Your task to perform on an android device: What is the speed of a cheetah? Image 0: 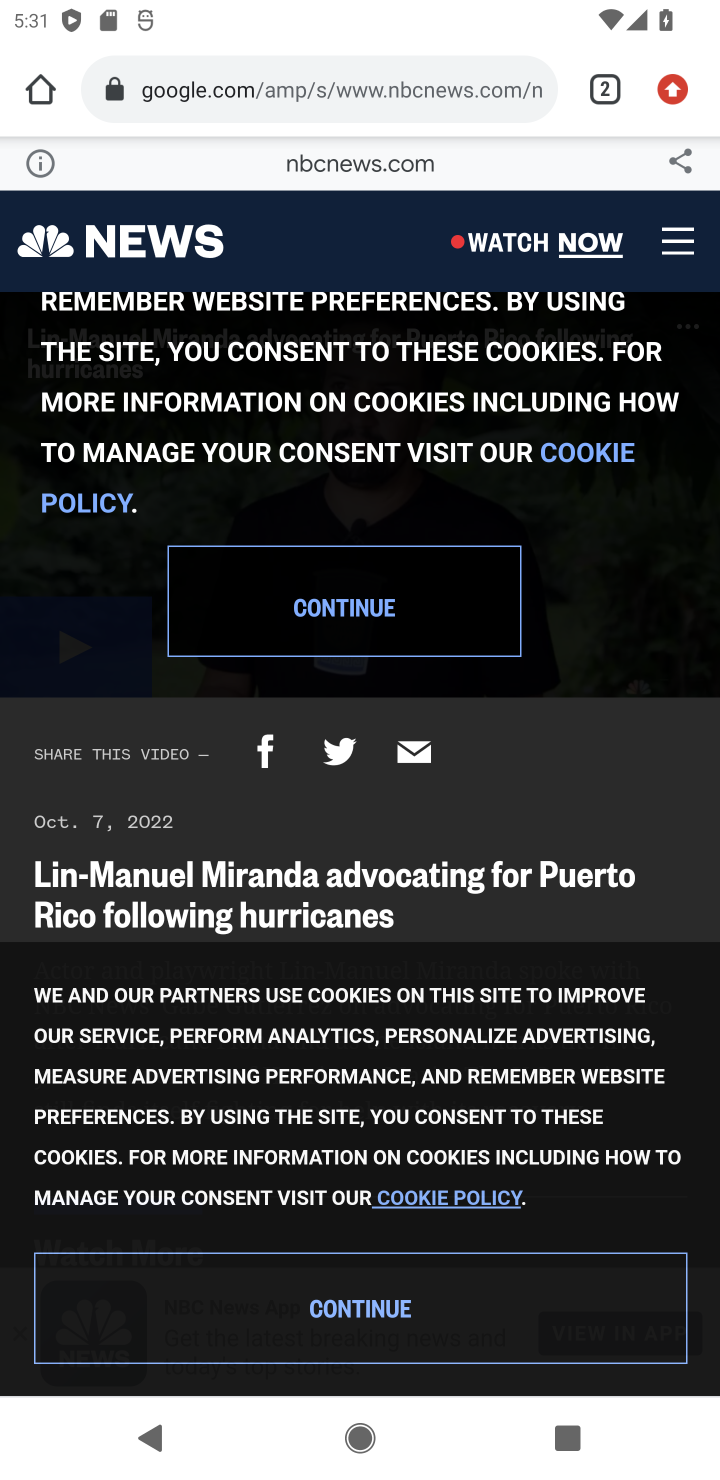
Step 0: press home button
Your task to perform on an android device: What is the speed of a cheetah? Image 1: 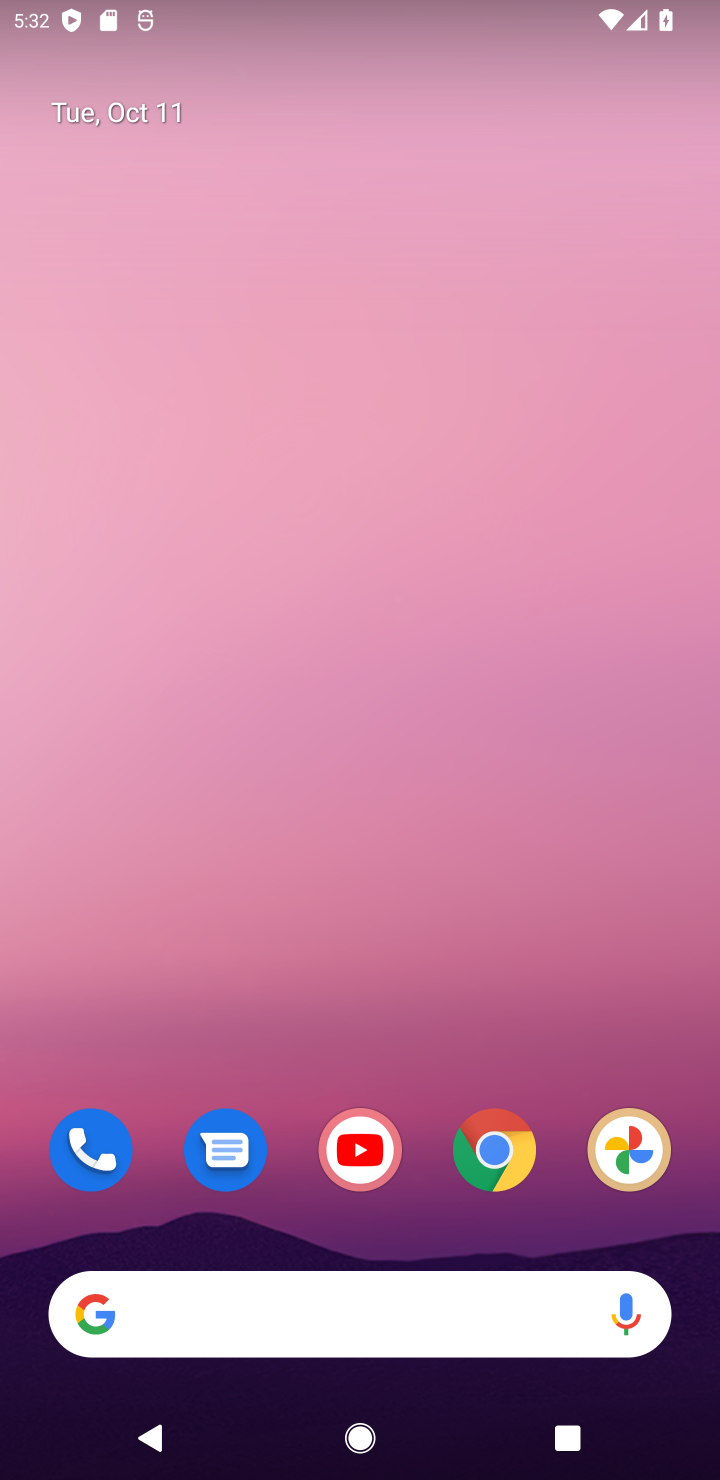
Step 1: click (480, 1158)
Your task to perform on an android device: What is the speed of a cheetah? Image 2: 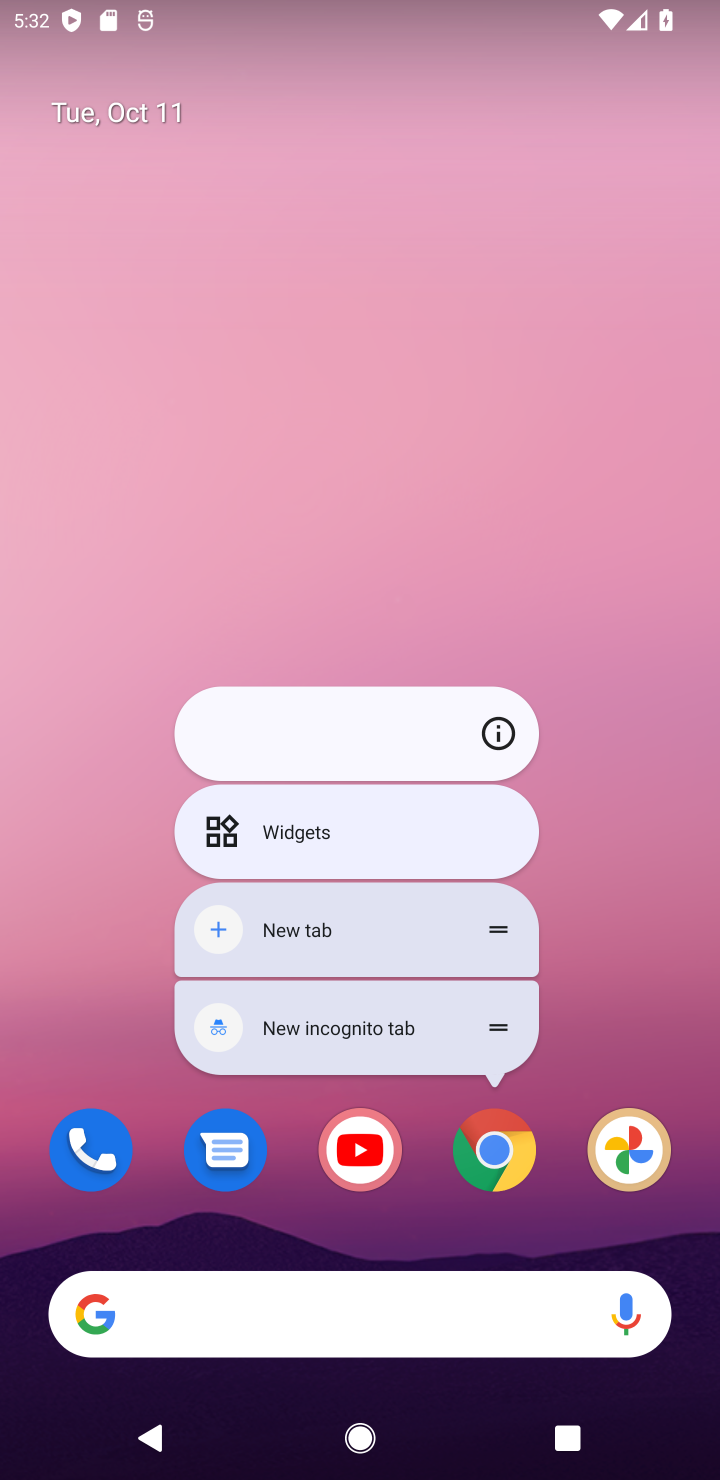
Step 2: click (500, 1169)
Your task to perform on an android device: What is the speed of a cheetah? Image 3: 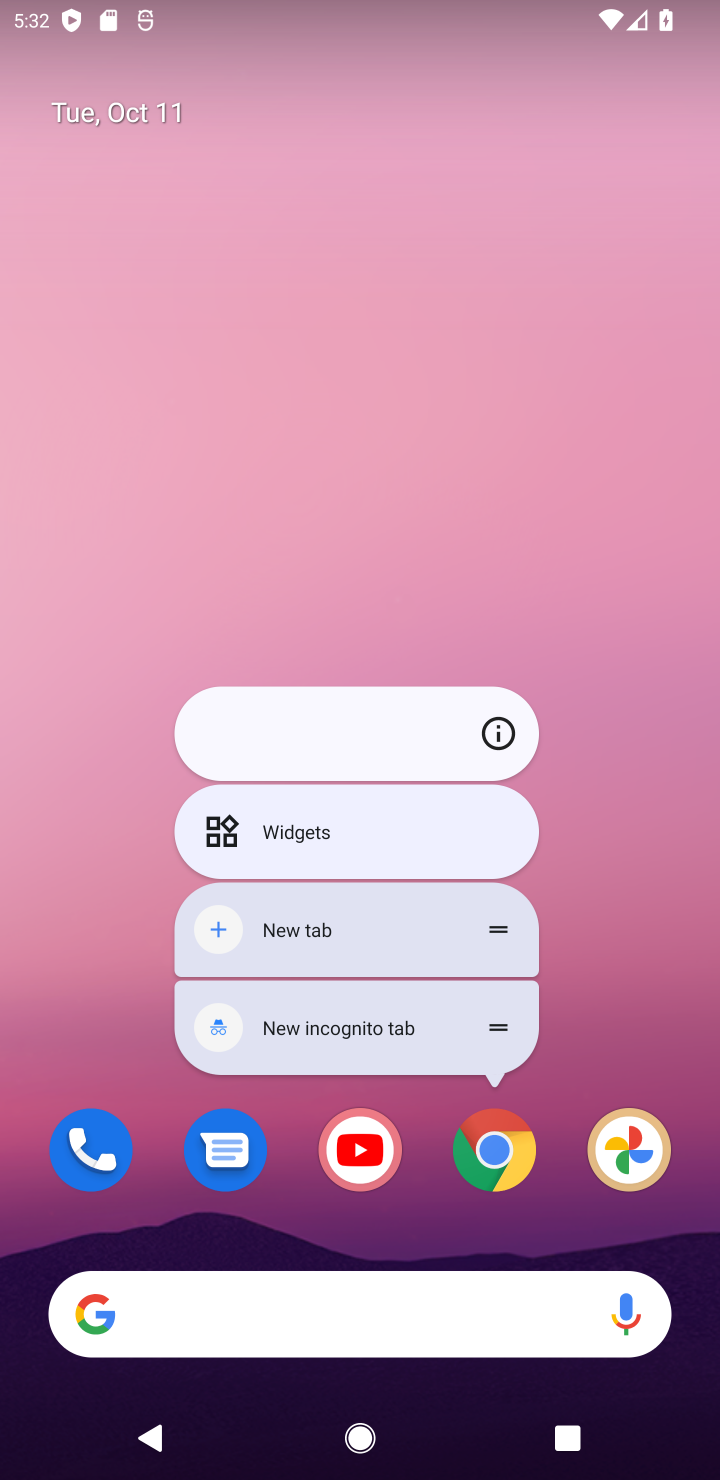
Step 3: click (499, 1127)
Your task to perform on an android device: What is the speed of a cheetah? Image 4: 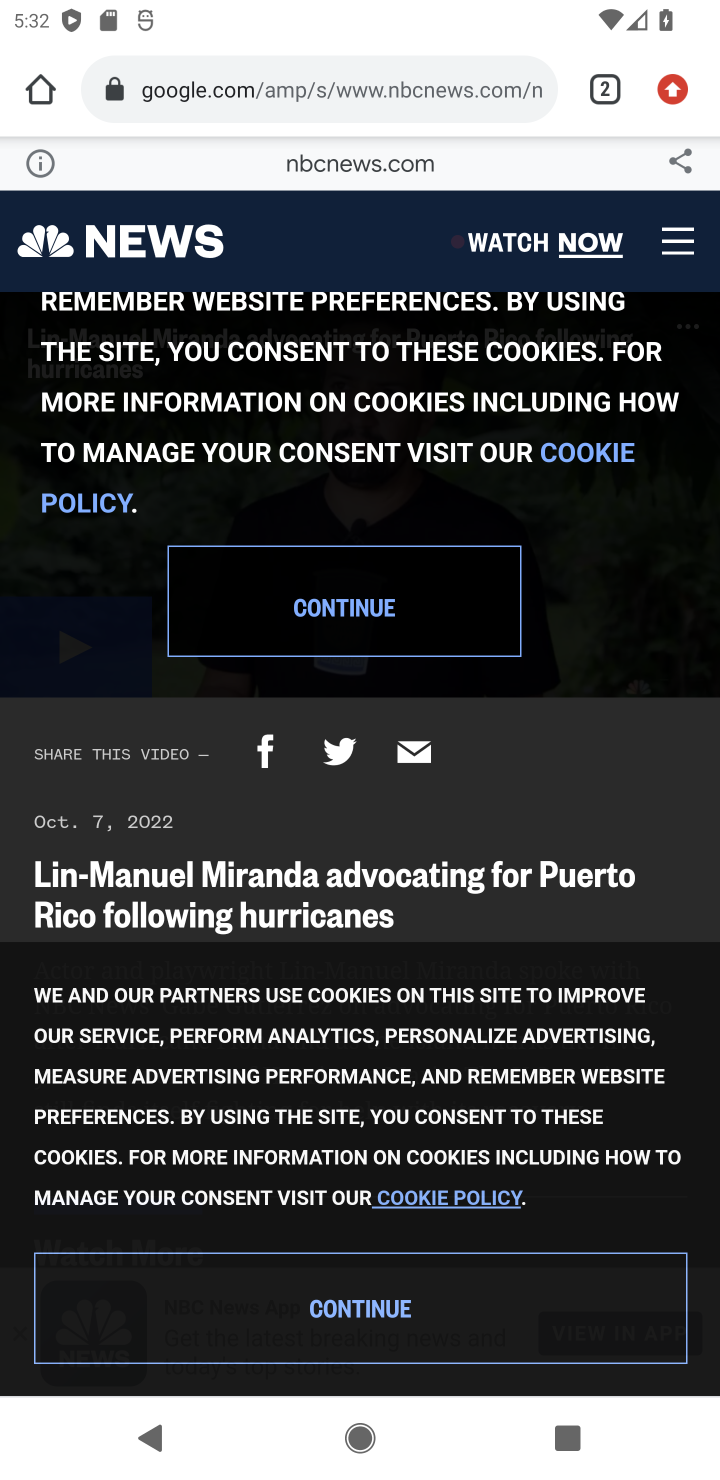
Step 4: click (311, 93)
Your task to perform on an android device: What is the speed of a cheetah? Image 5: 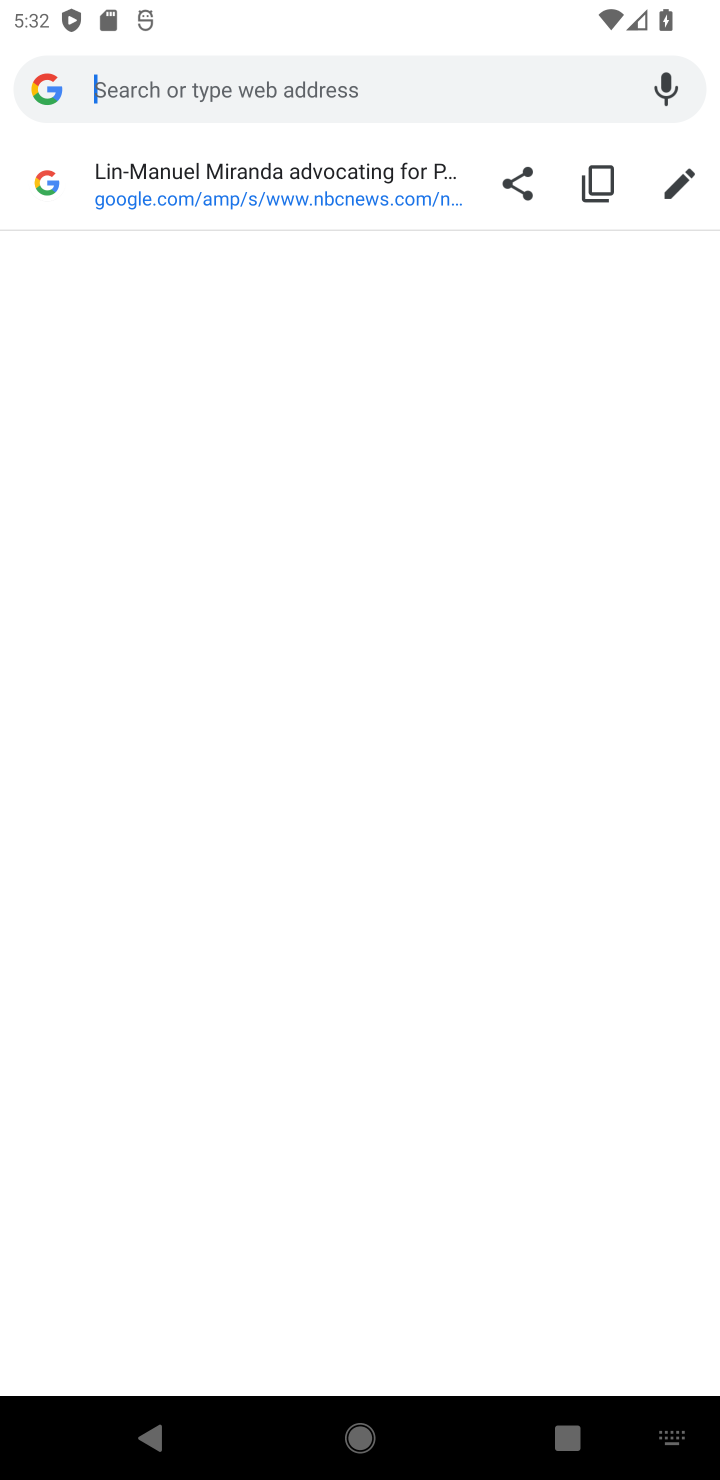
Step 5: type "speed of cheetah"
Your task to perform on an android device: What is the speed of a cheetah? Image 6: 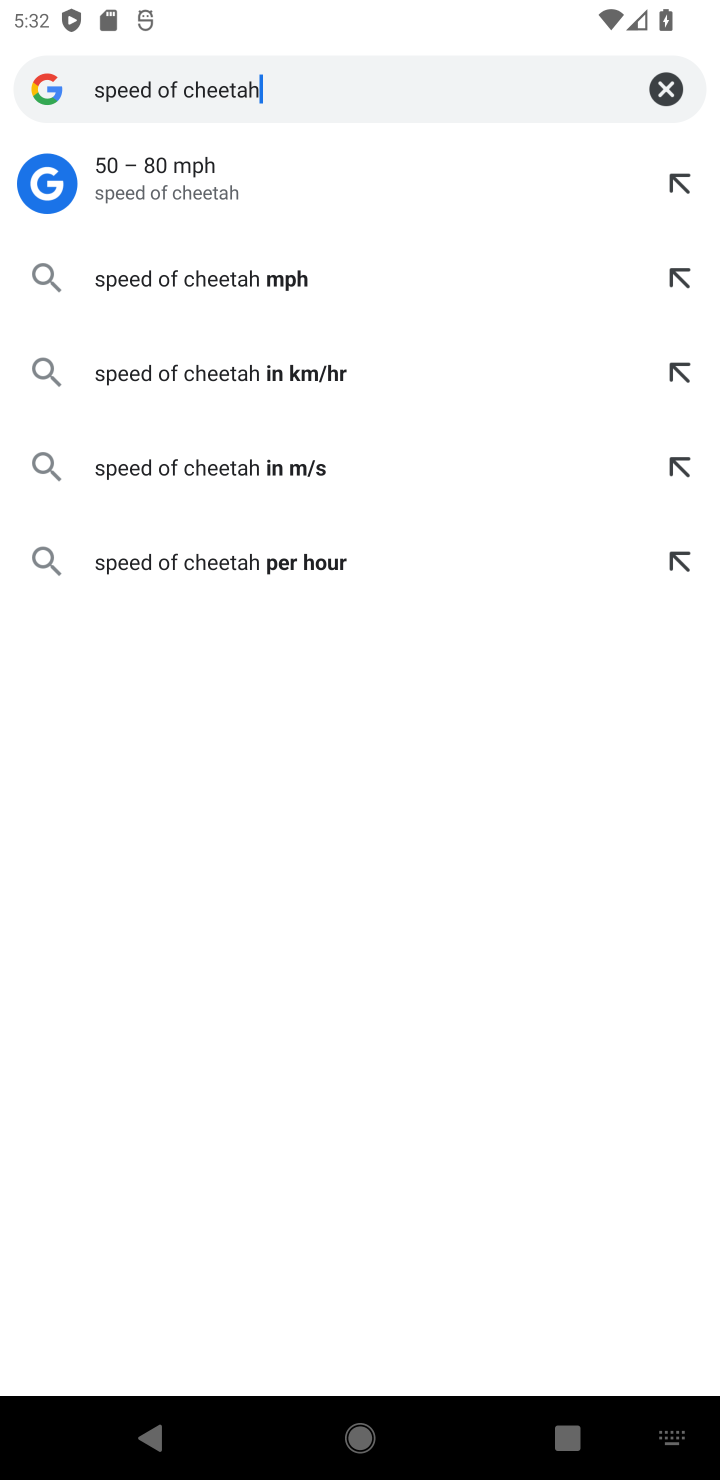
Step 6: click (129, 194)
Your task to perform on an android device: What is the speed of a cheetah? Image 7: 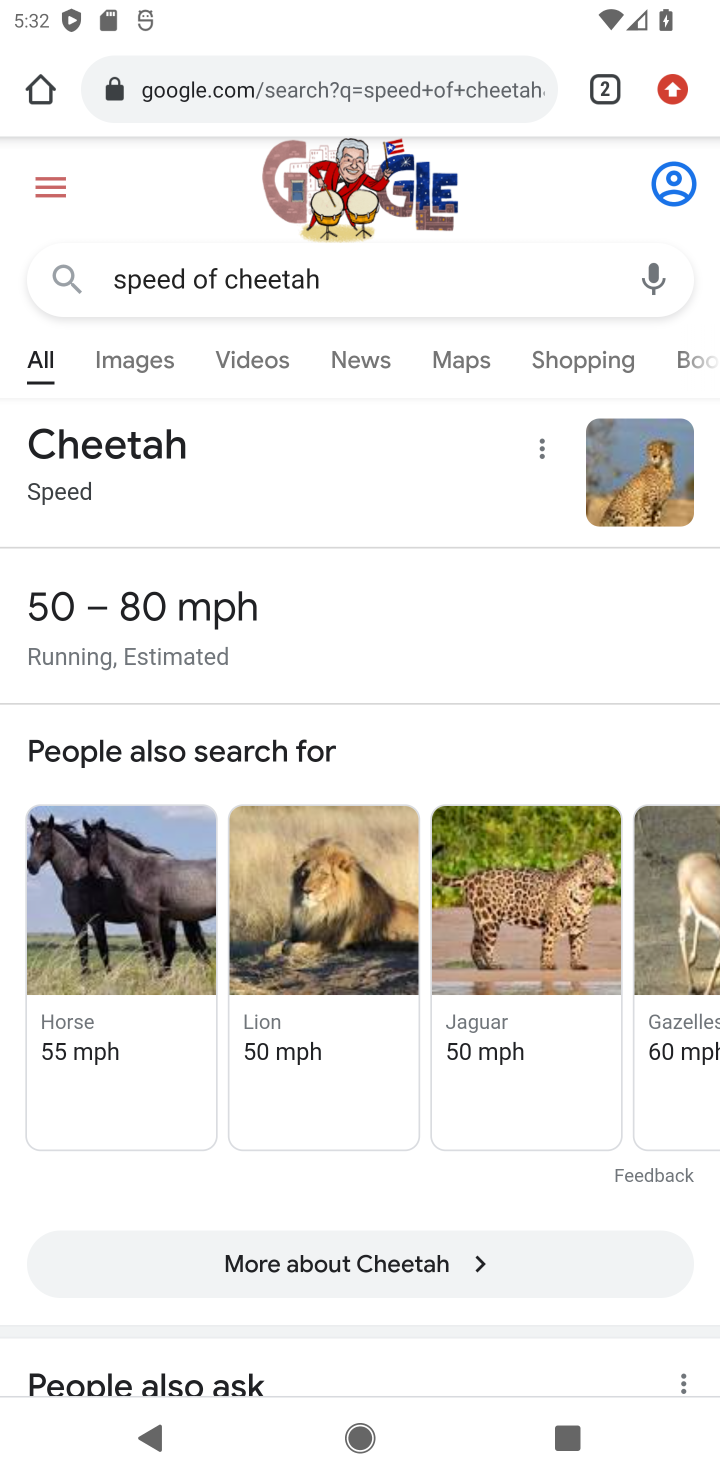
Step 7: task complete